Your task to perform on an android device: What's on my calendar tomorrow? Image 0: 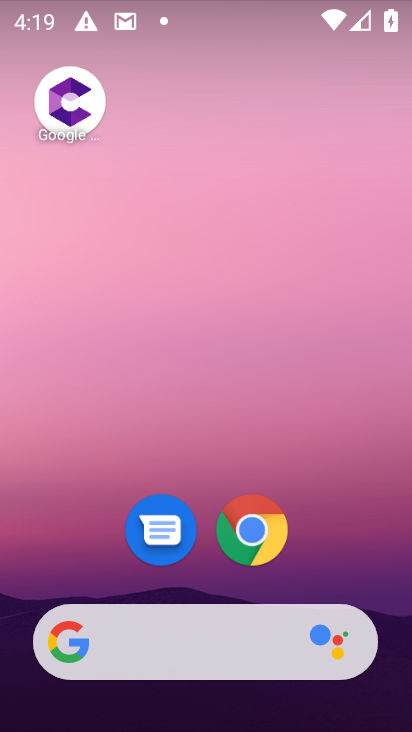
Step 0: drag from (207, 571) to (277, 125)
Your task to perform on an android device: What's on my calendar tomorrow? Image 1: 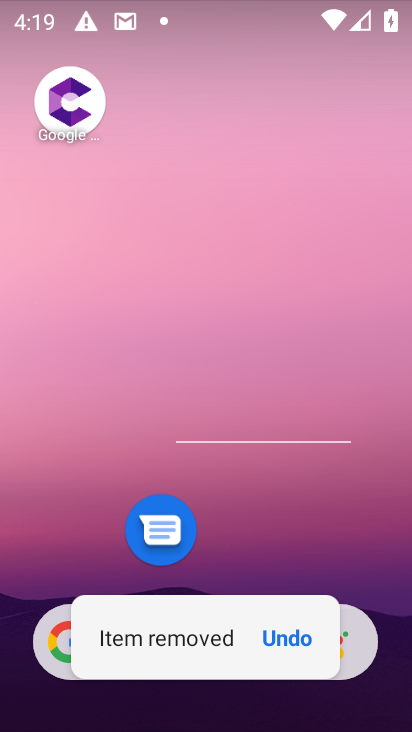
Step 1: drag from (182, 564) to (224, 30)
Your task to perform on an android device: What's on my calendar tomorrow? Image 2: 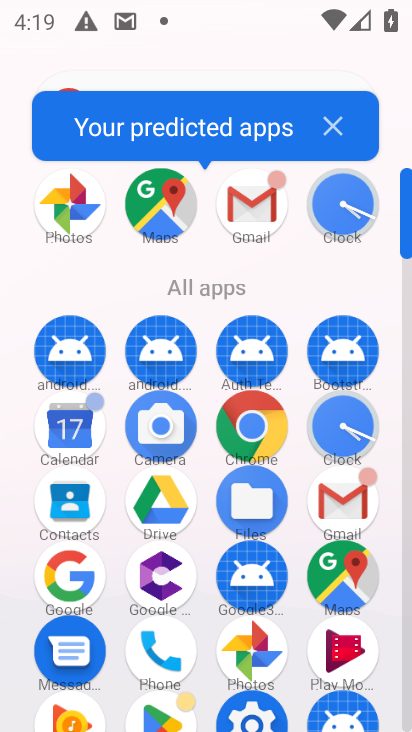
Step 2: click (69, 439)
Your task to perform on an android device: What's on my calendar tomorrow? Image 3: 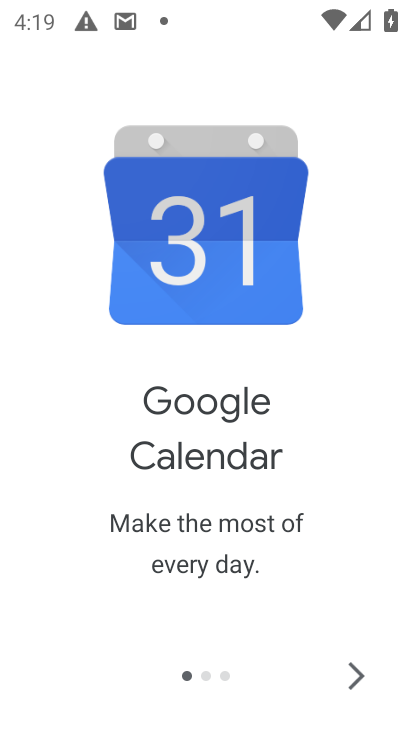
Step 3: click (352, 677)
Your task to perform on an android device: What's on my calendar tomorrow? Image 4: 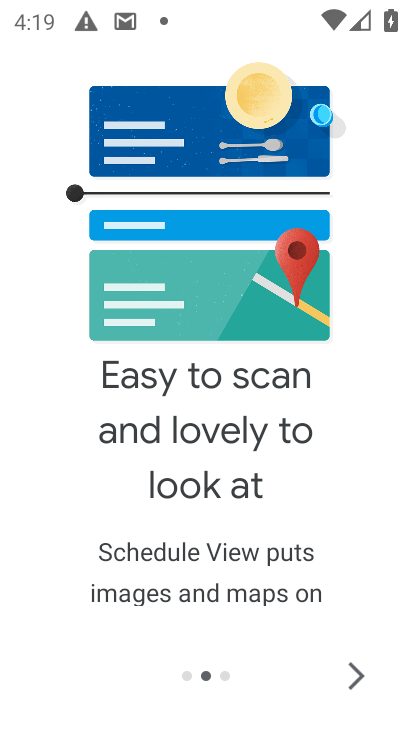
Step 4: click (352, 677)
Your task to perform on an android device: What's on my calendar tomorrow? Image 5: 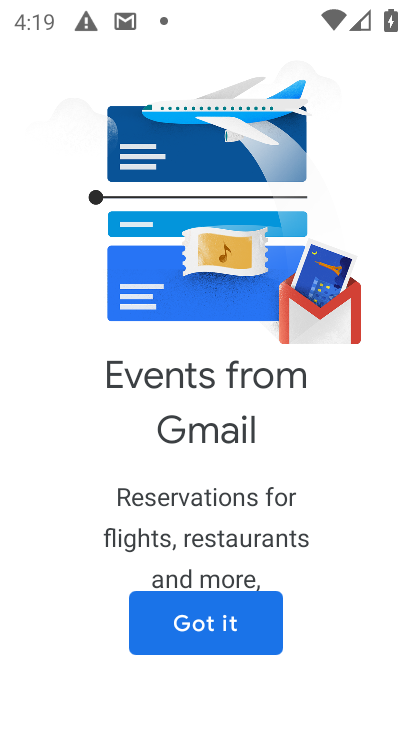
Step 5: click (219, 625)
Your task to perform on an android device: What's on my calendar tomorrow? Image 6: 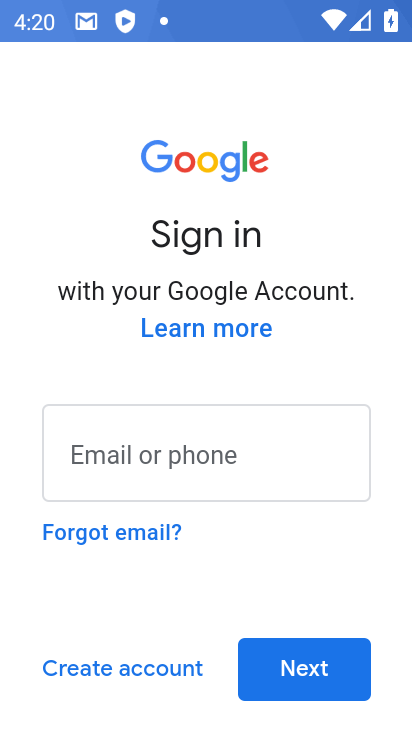
Step 6: task complete